Your task to perform on an android device: Open my contact list Image 0: 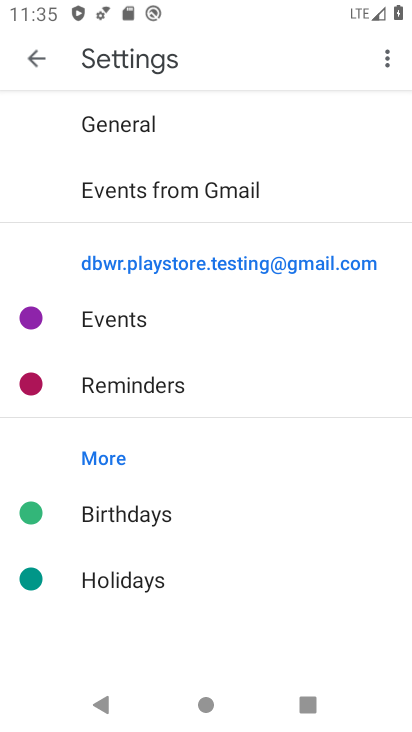
Step 0: press home button
Your task to perform on an android device: Open my contact list Image 1: 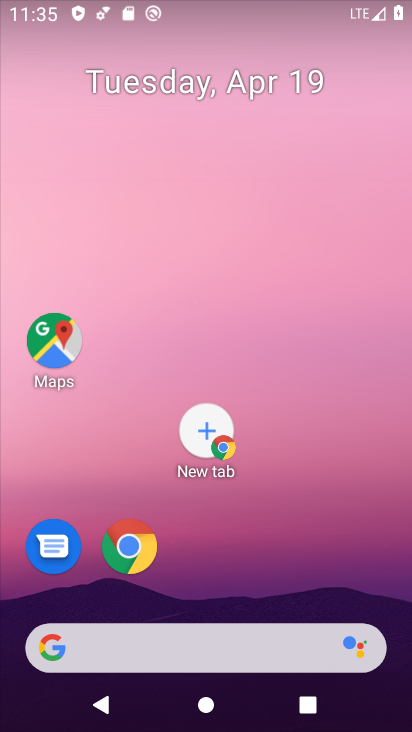
Step 1: drag from (234, 546) to (256, 57)
Your task to perform on an android device: Open my contact list Image 2: 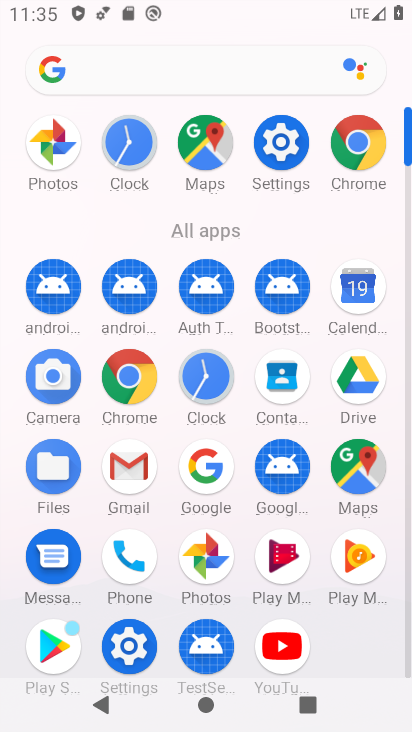
Step 2: click (276, 396)
Your task to perform on an android device: Open my contact list Image 3: 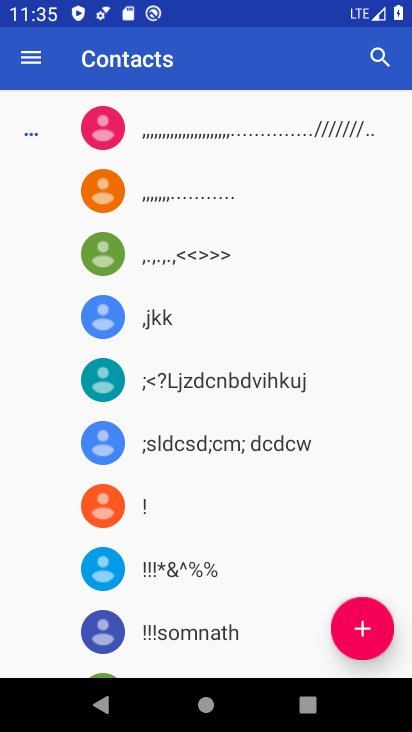
Step 3: task complete